Your task to perform on an android device: open a new tab in the chrome app Image 0: 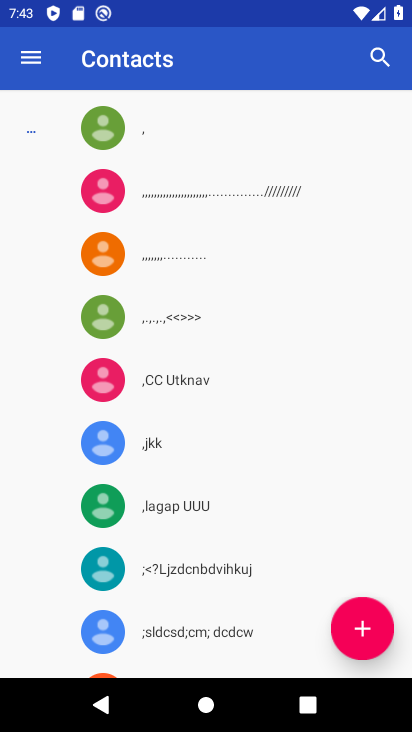
Step 0: drag from (132, 575) to (325, 78)
Your task to perform on an android device: open a new tab in the chrome app Image 1: 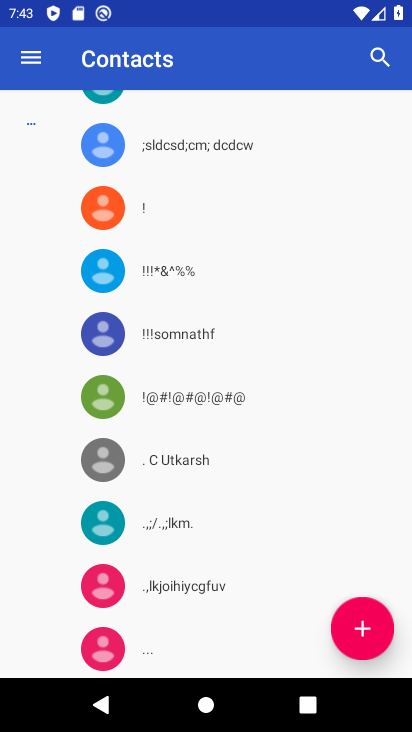
Step 1: press home button
Your task to perform on an android device: open a new tab in the chrome app Image 2: 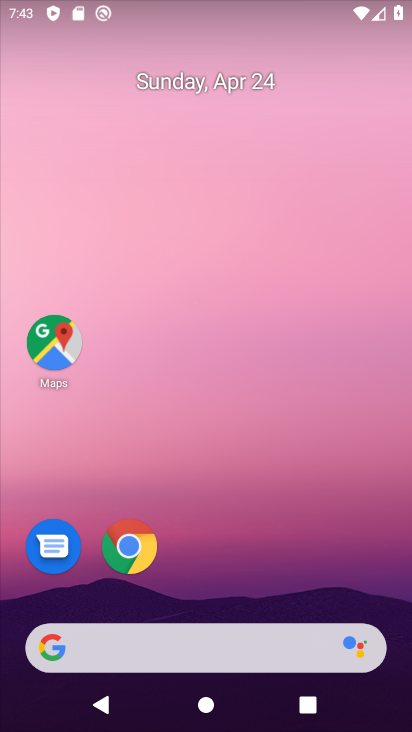
Step 2: drag from (177, 613) to (169, 247)
Your task to perform on an android device: open a new tab in the chrome app Image 3: 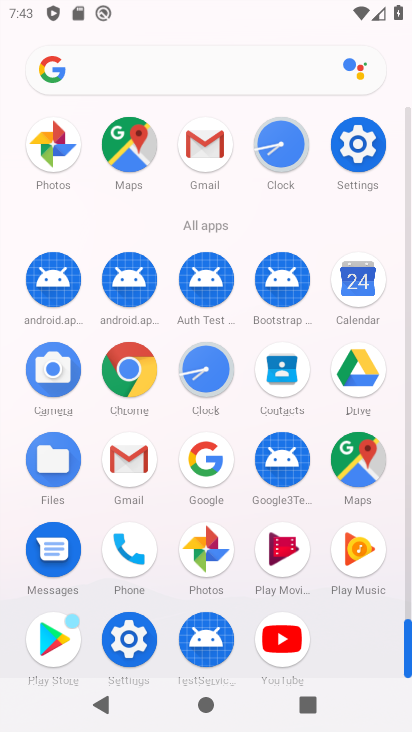
Step 3: click (120, 372)
Your task to perform on an android device: open a new tab in the chrome app Image 4: 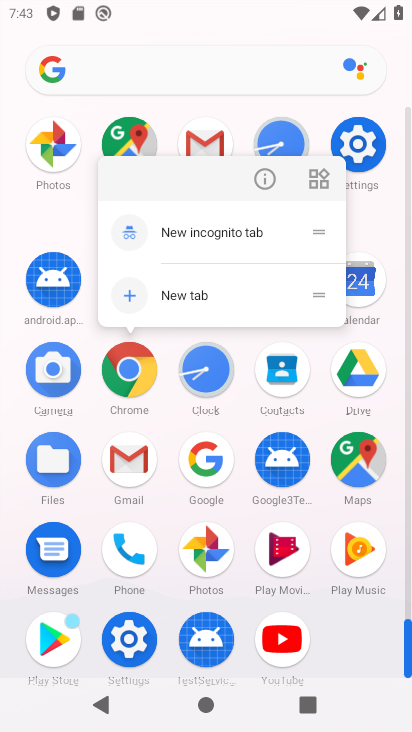
Step 4: click (255, 165)
Your task to perform on an android device: open a new tab in the chrome app Image 5: 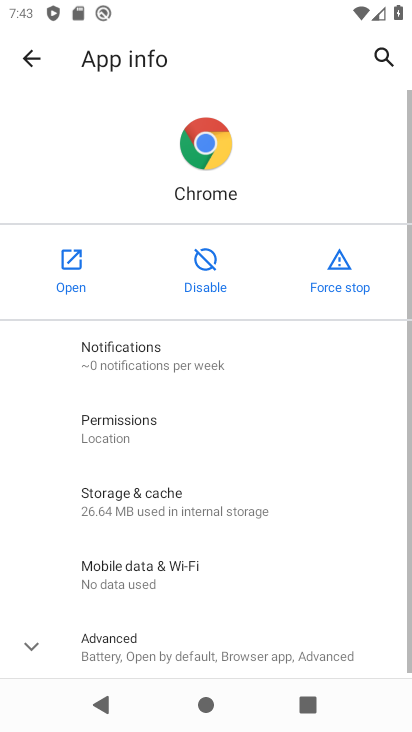
Step 5: click (75, 262)
Your task to perform on an android device: open a new tab in the chrome app Image 6: 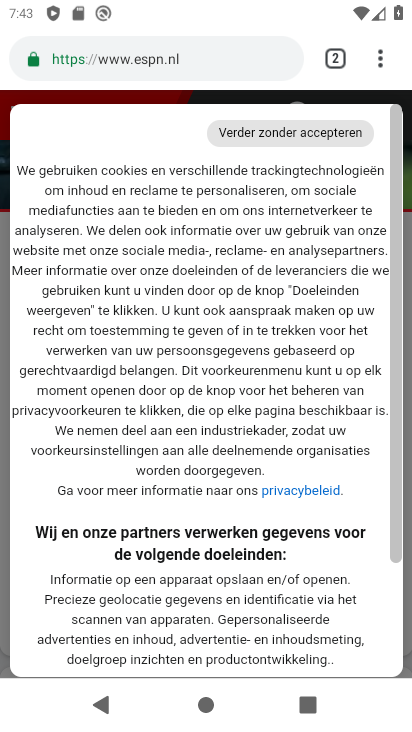
Step 6: drag from (176, 634) to (220, 230)
Your task to perform on an android device: open a new tab in the chrome app Image 7: 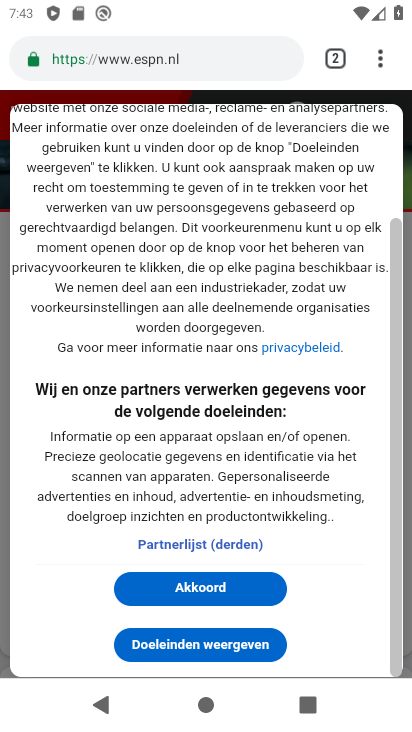
Step 7: click (322, 70)
Your task to perform on an android device: open a new tab in the chrome app Image 8: 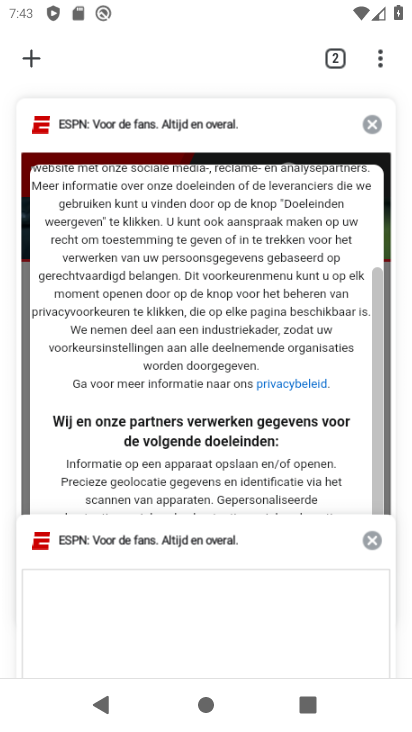
Step 8: click (28, 59)
Your task to perform on an android device: open a new tab in the chrome app Image 9: 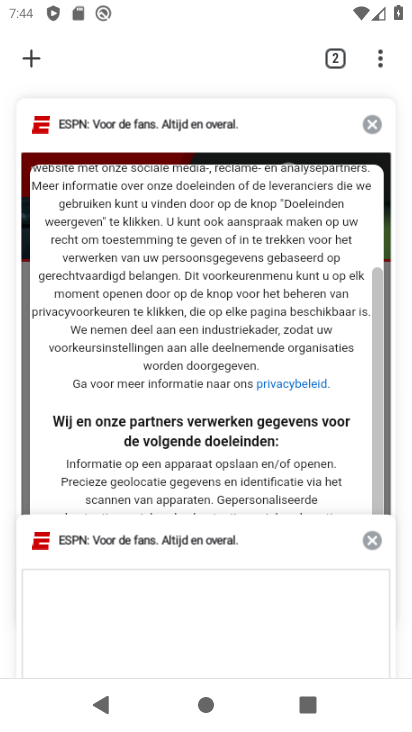
Step 9: click (32, 54)
Your task to perform on an android device: open a new tab in the chrome app Image 10: 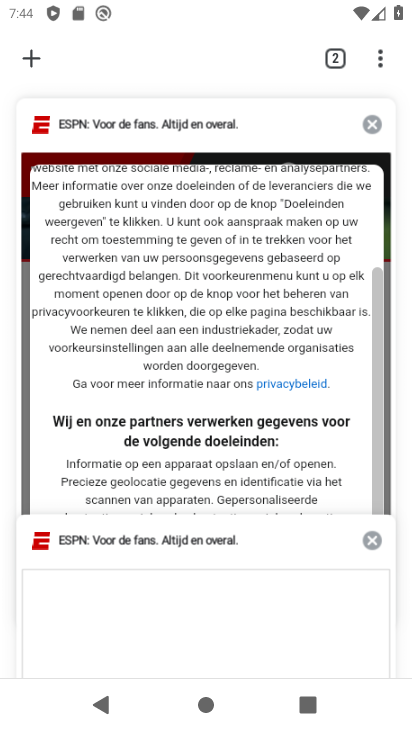
Step 10: click (30, 54)
Your task to perform on an android device: open a new tab in the chrome app Image 11: 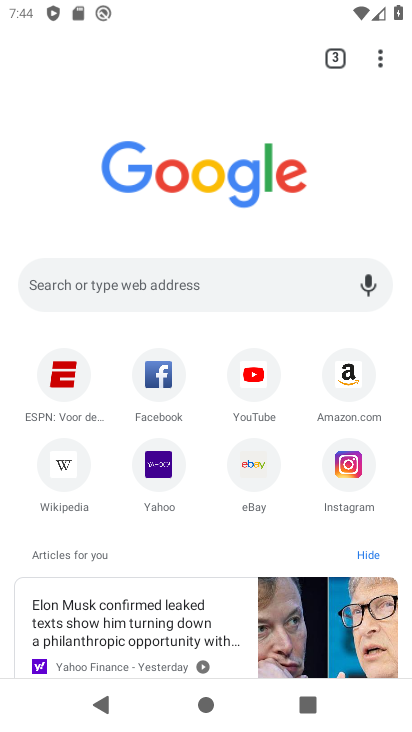
Step 11: task complete